Your task to perform on an android device: open wifi settings Image 0: 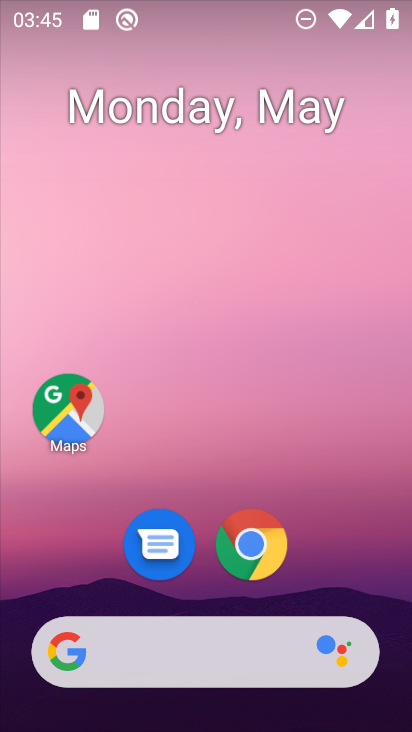
Step 0: drag from (376, 586) to (374, 261)
Your task to perform on an android device: open wifi settings Image 1: 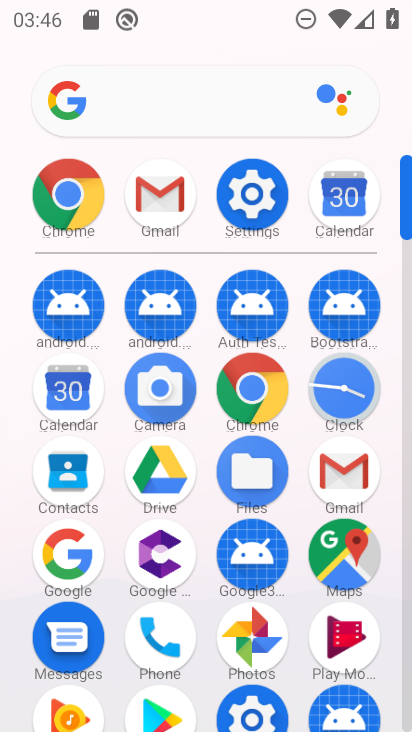
Step 1: click (269, 217)
Your task to perform on an android device: open wifi settings Image 2: 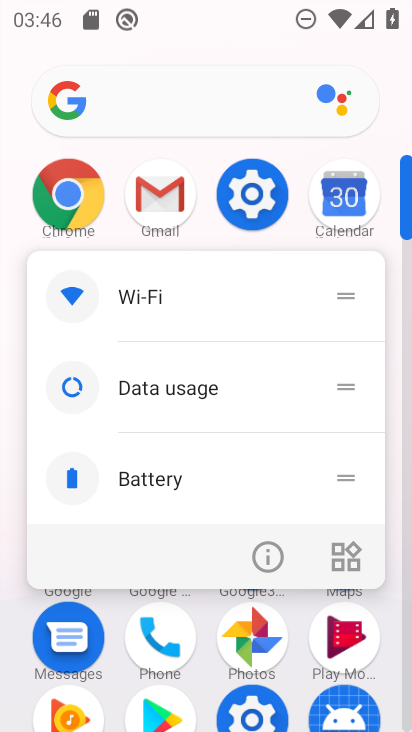
Step 2: click (269, 217)
Your task to perform on an android device: open wifi settings Image 3: 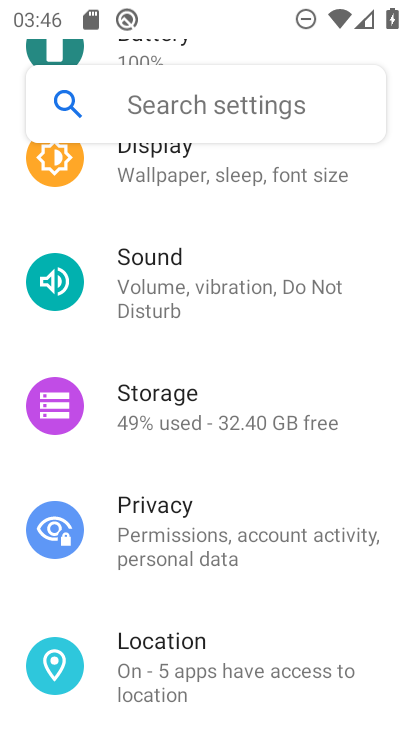
Step 3: drag from (359, 243) to (362, 375)
Your task to perform on an android device: open wifi settings Image 4: 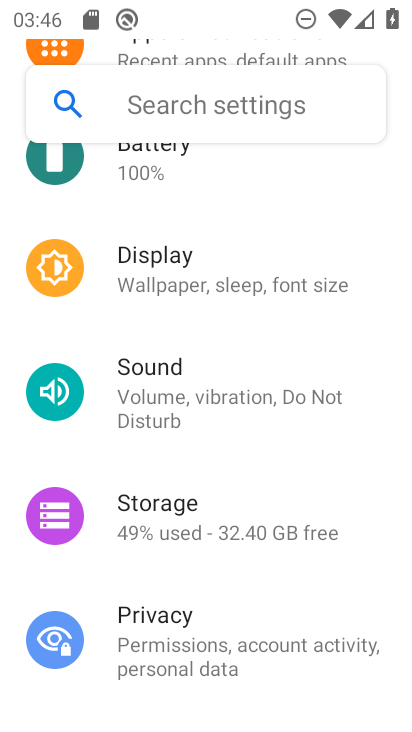
Step 4: drag from (344, 191) to (360, 330)
Your task to perform on an android device: open wifi settings Image 5: 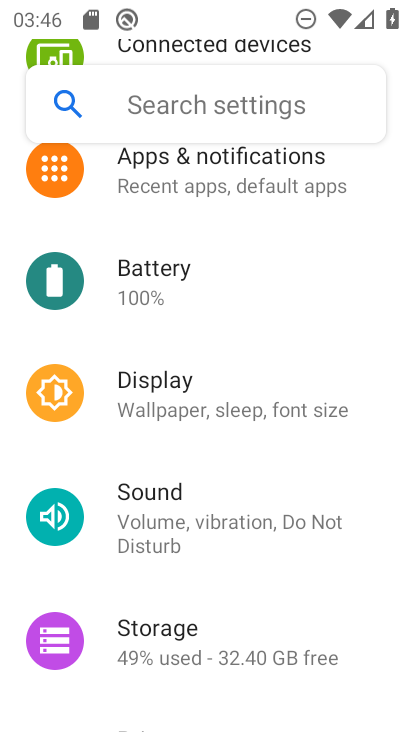
Step 5: drag from (358, 167) to (350, 342)
Your task to perform on an android device: open wifi settings Image 6: 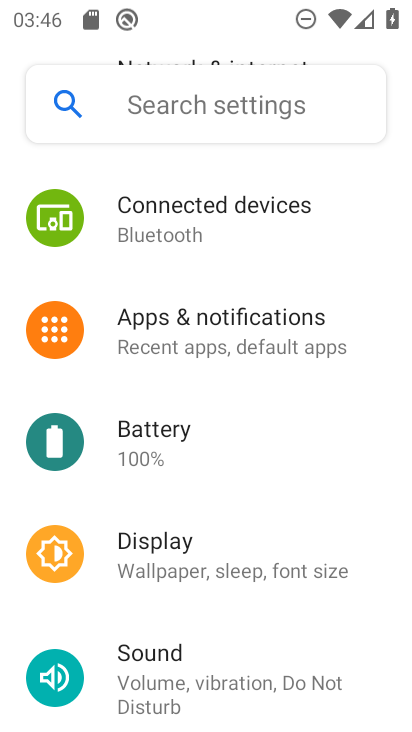
Step 6: drag from (341, 185) to (340, 310)
Your task to perform on an android device: open wifi settings Image 7: 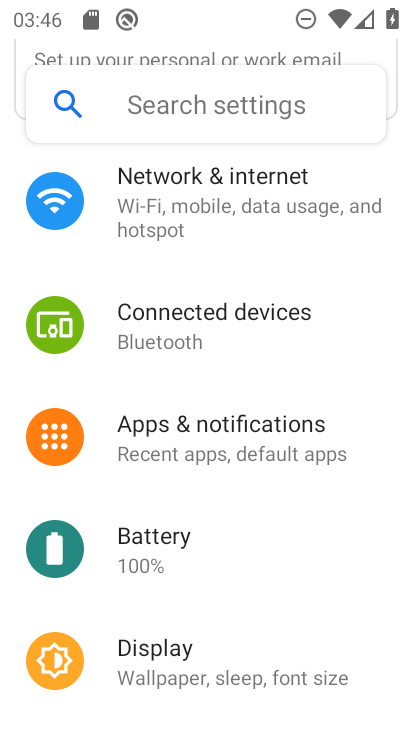
Step 7: drag from (346, 181) to (354, 362)
Your task to perform on an android device: open wifi settings Image 8: 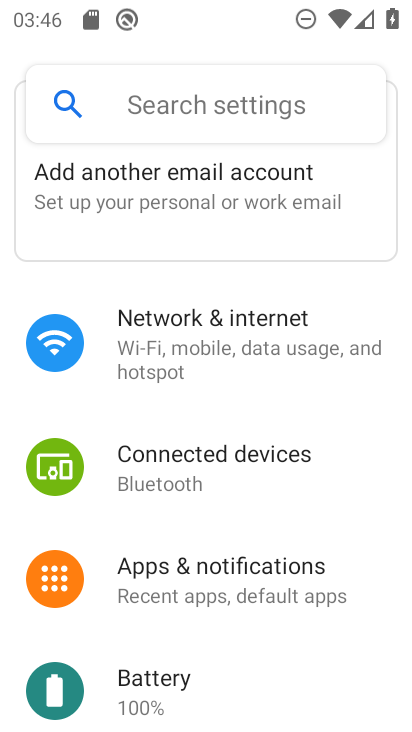
Step 8: click (264, 334)
Your task to perform on an android device: open wifi settings Image 9: 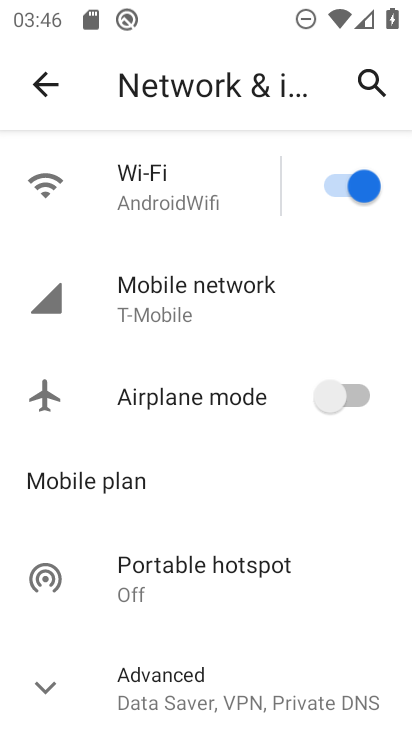
Step 9: click (186, 189)
Your task to perform on an android device: open wifi settings Image 10: 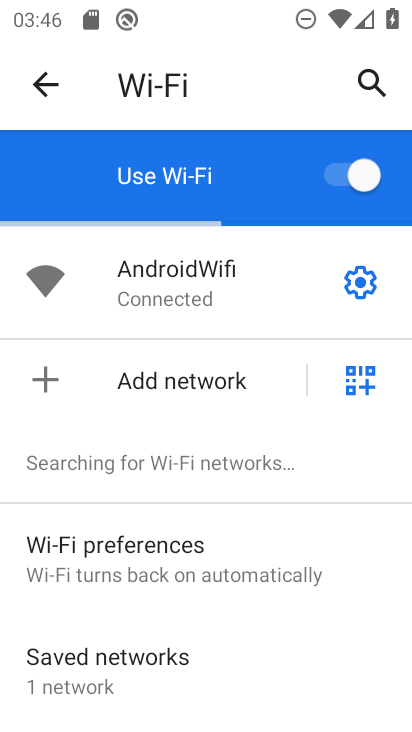
Step 10: task complete